Your task to perform on an android device: Add usb-a to the cart on walmart.com, then select checkout. Image 0: 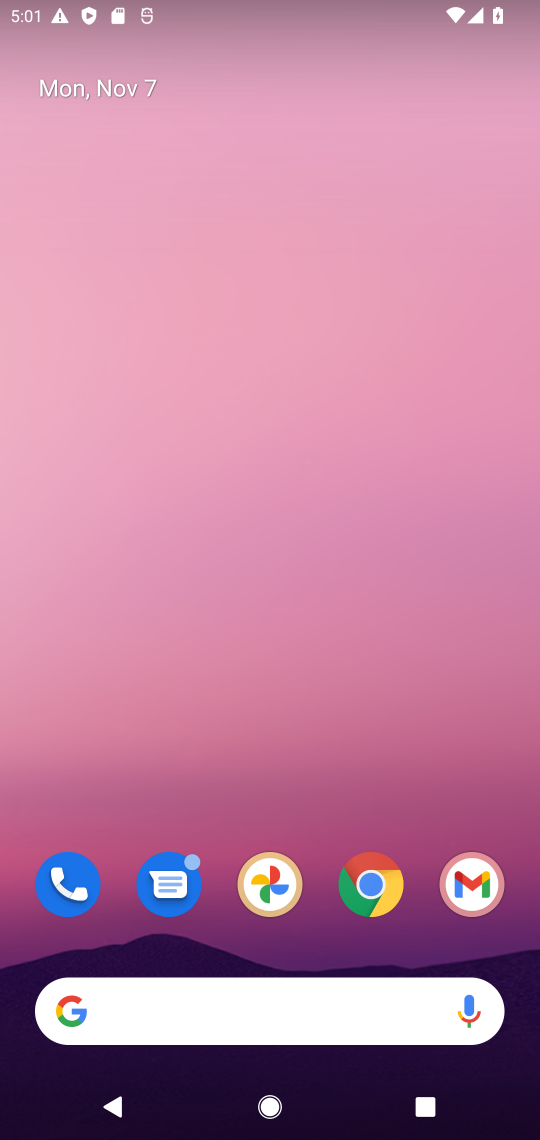
Step 0: drag from (266, 943) to (278, 95)
Your task to perform on an android device: Add usb-a to the cart on walmart.com, then select checkout. Image 1: 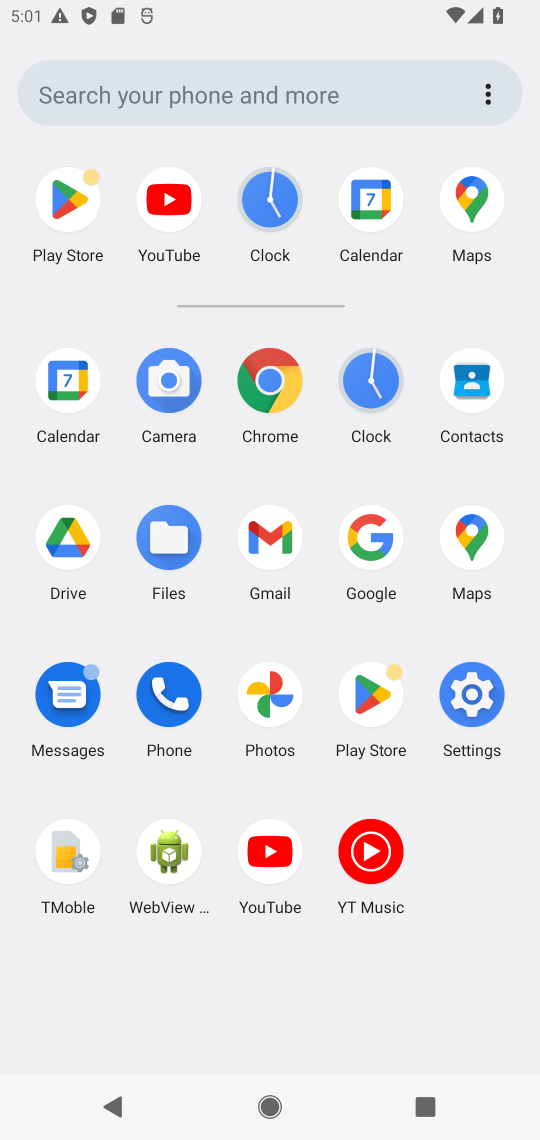
Step 1: click (262, 383)
Your task to perform on an android device: Add usb-a to the cart on walmart.com, then select checkout. Image 2: 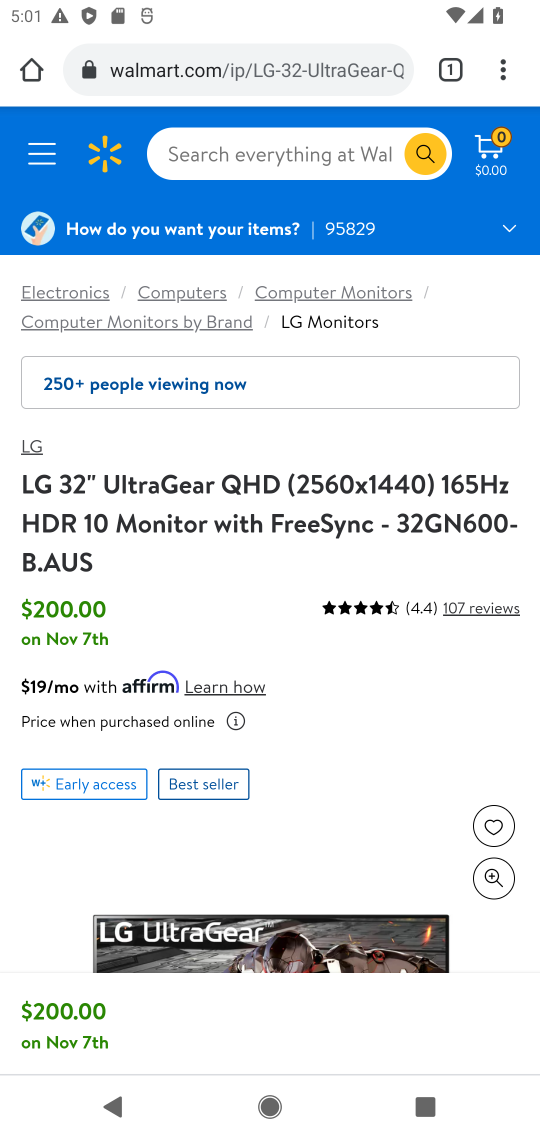
Step 2: click (235, 73)
Your task to perform on an android device: Add usb-a to the cart on walmart.com, then select checkout. Image 3: 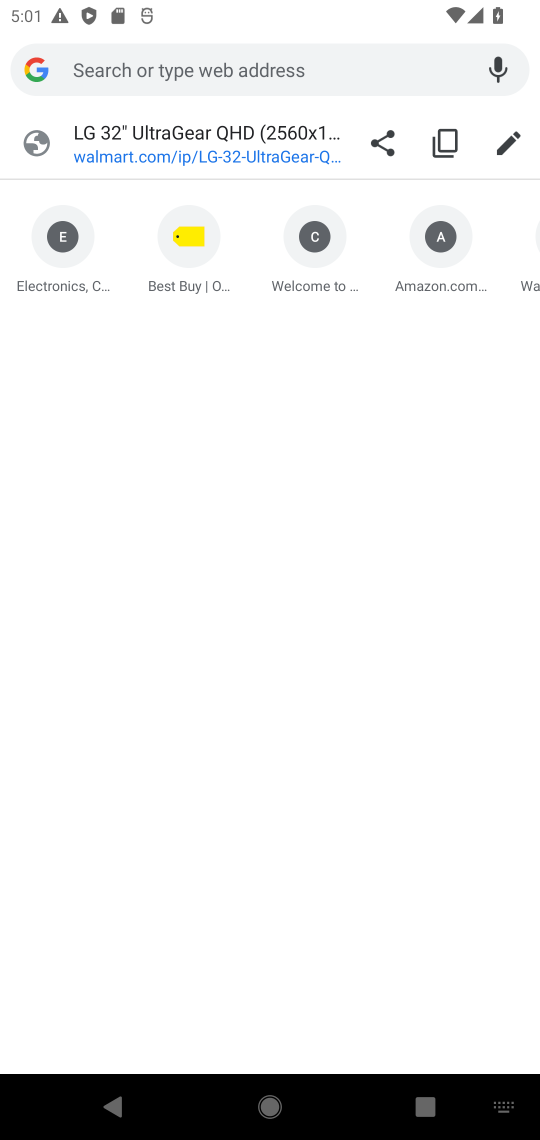
Step 3: type "walmart.com"
Your task to perform on an android device: Add usb-a to the cart on walmart.com, then select checkout. Image 4: 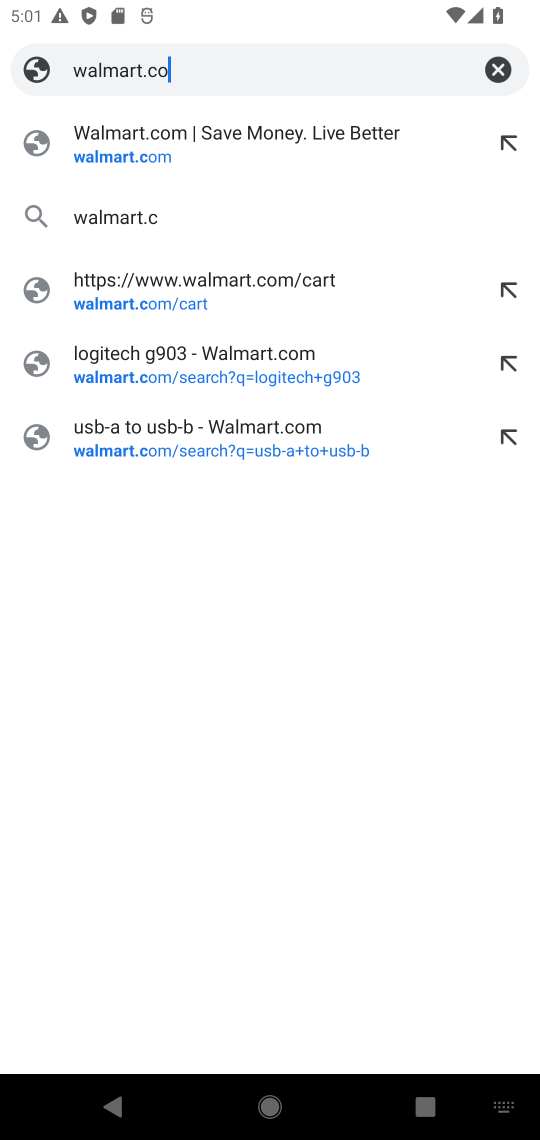
Step 4: press enter
Your task to perform on an android device: Add usb-a to the cart on walmart.com, then select checkout. Image 5: 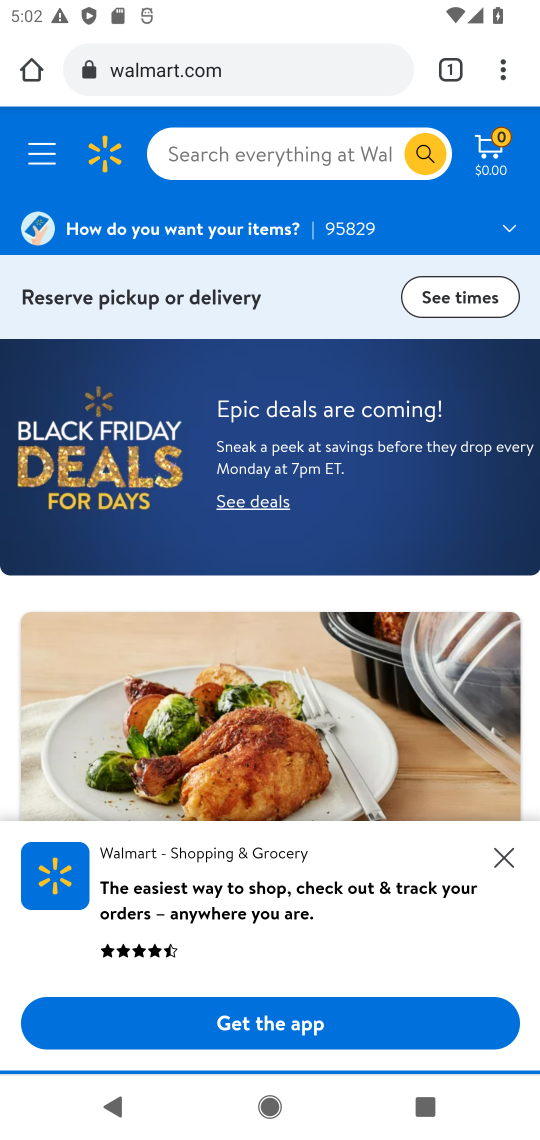
Step 5: click (331, 144)
Your task to perform on an android device: Add usb-a to the cart on walmart.com, then select checkout. Image 6: 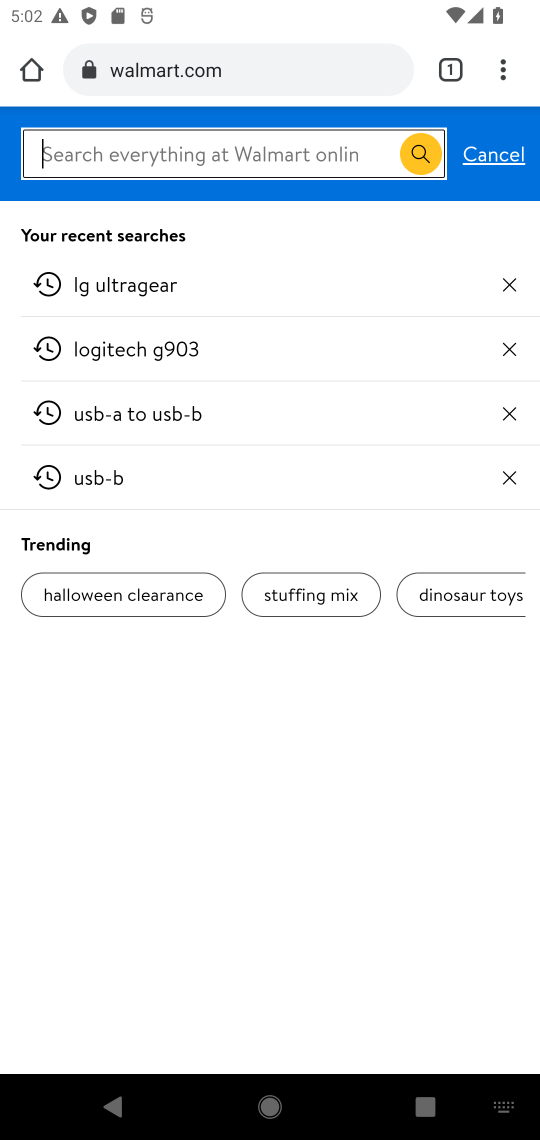
Step 6: type "usb-a"
Your task to perform on an android device: Add usb-a to the cart on walmart.com, then select checkout. Image 7: 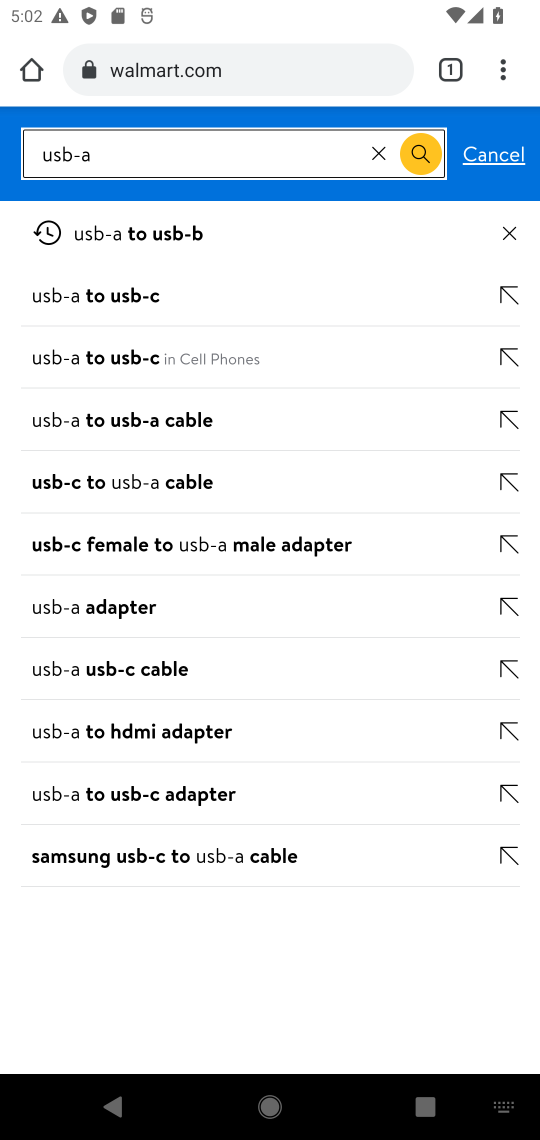
Step 7: press enter
Your task to perform on an android device: Add usb-a to the cart on walmart.com, then select checkout. Image 8: 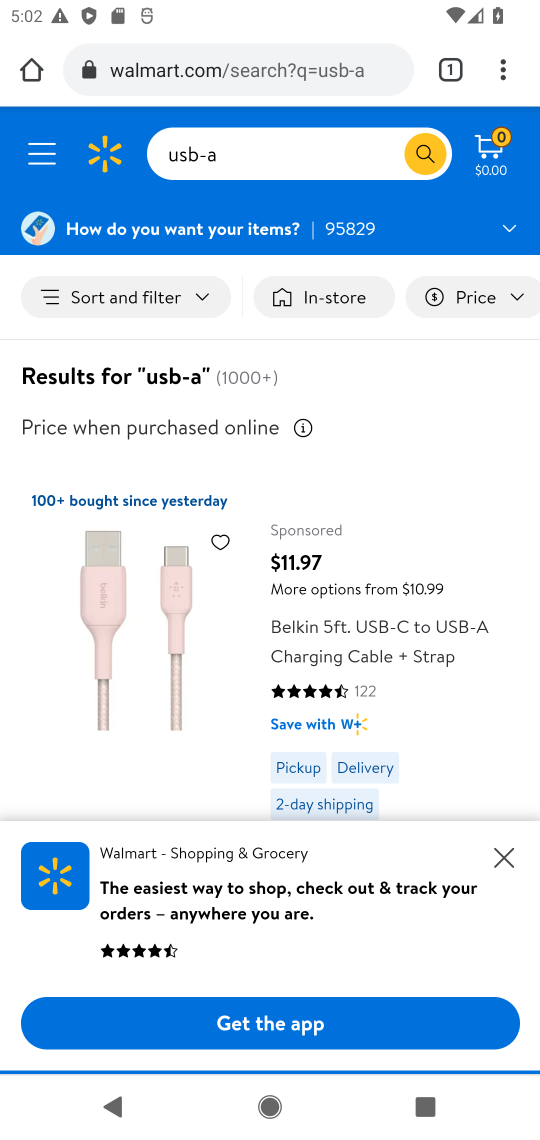
Step 8: drag from (318, 679) to (331, 10)
Your task to perform on an android device: Add usb-a to the cart on walmart.com, then select checkout. Image 9: 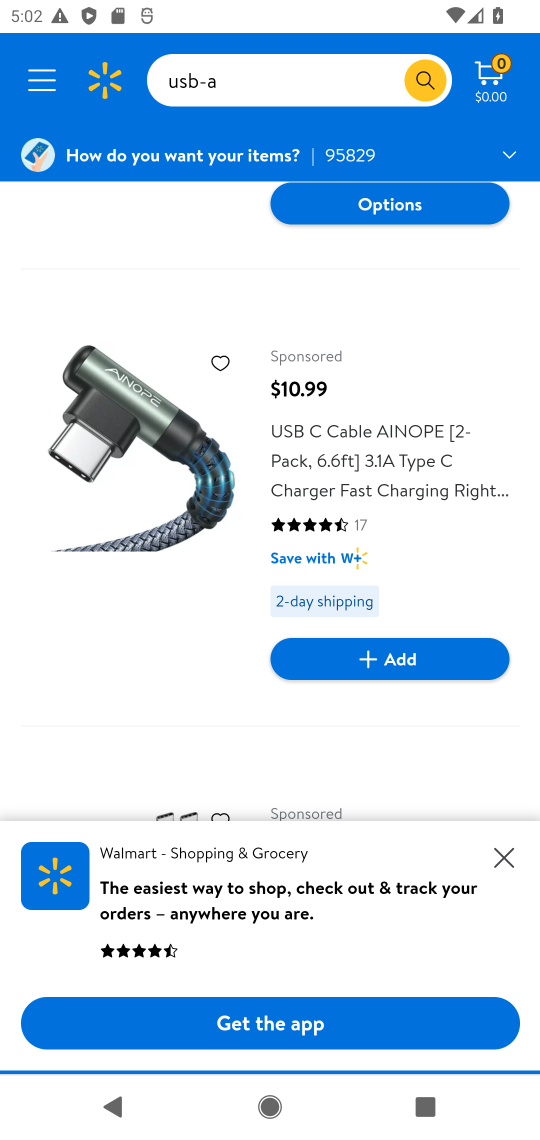
Step 9: drag from (311, 608) to (309, 4)
Your task to perform on an android device: Add usb-a to the cart on walmart.com, then select checkout. Image 10: 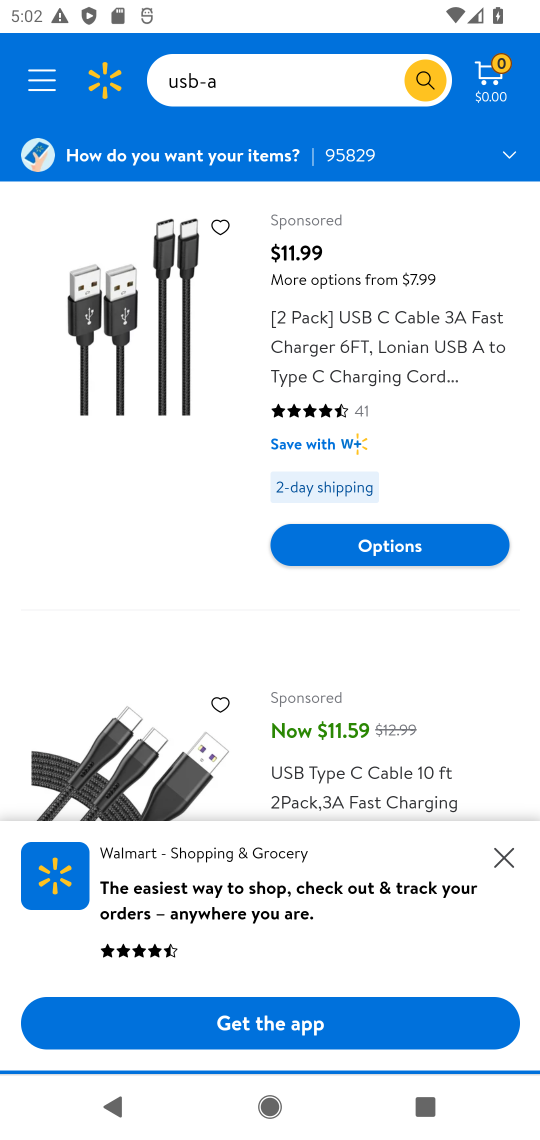
Step 10: drag from (355, 675) to (384, 73)
Your task to perform on an android device: Add usb-a to the cart on walmart.com, then select checkout. Image 11: 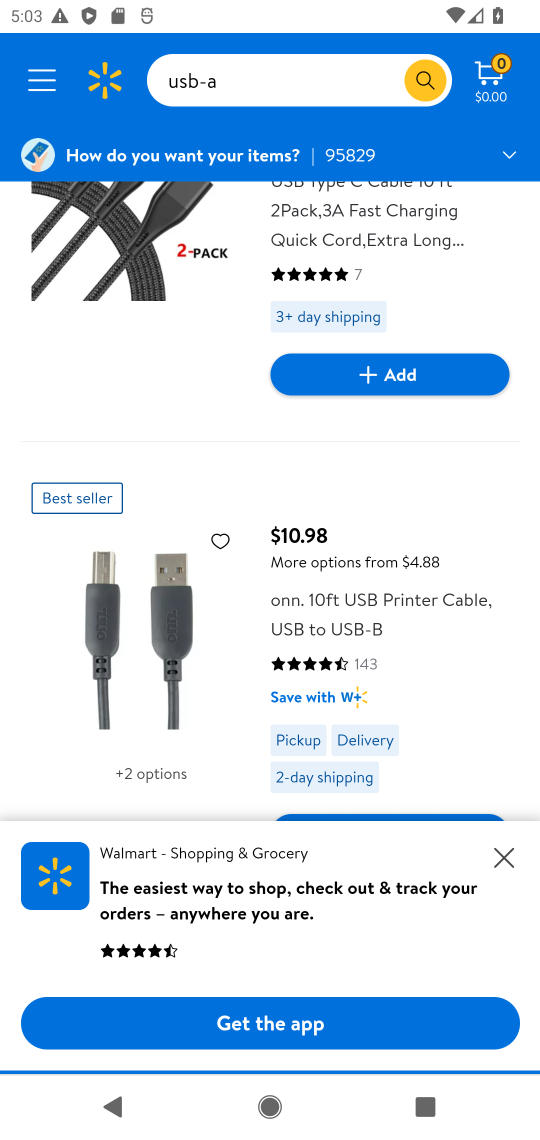
Step 11: drag from (365, 251) to (300, 4)
Your task to perform on an android device: Add usb-a to the cart on walmart.com, then select checkout. Image 12: 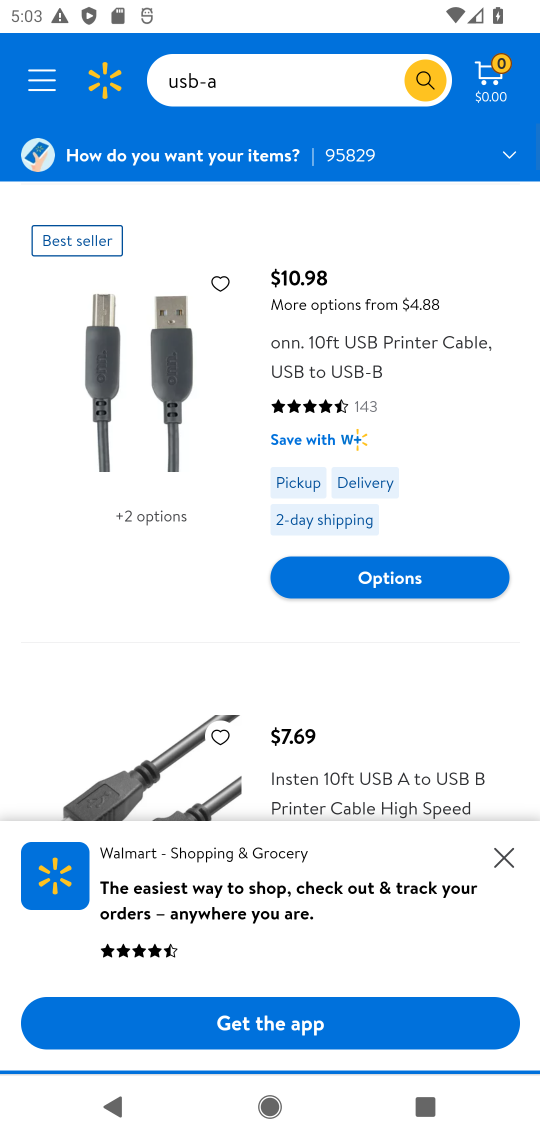
Step 12: drag from (277, 694) to (280, 203)
Your task to perform on an android device: Add usb-a to the cart on walmart.com, then select checkout. Image 13: 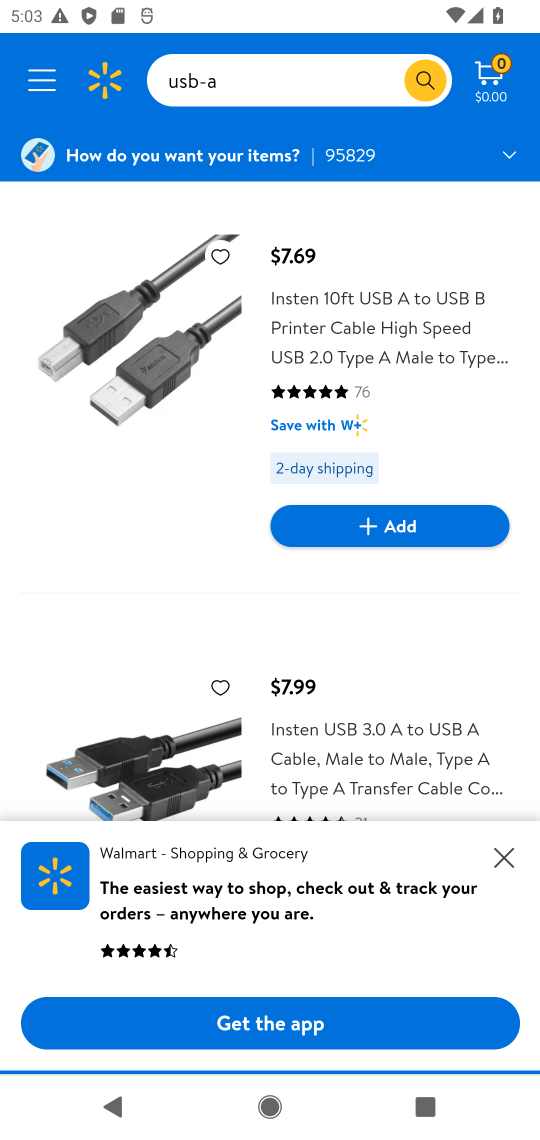
Step 13: click (400, 507)
Your task to perform on an android device: Add usb-a to the cart on walmart.com, then select checkout. Image 14: 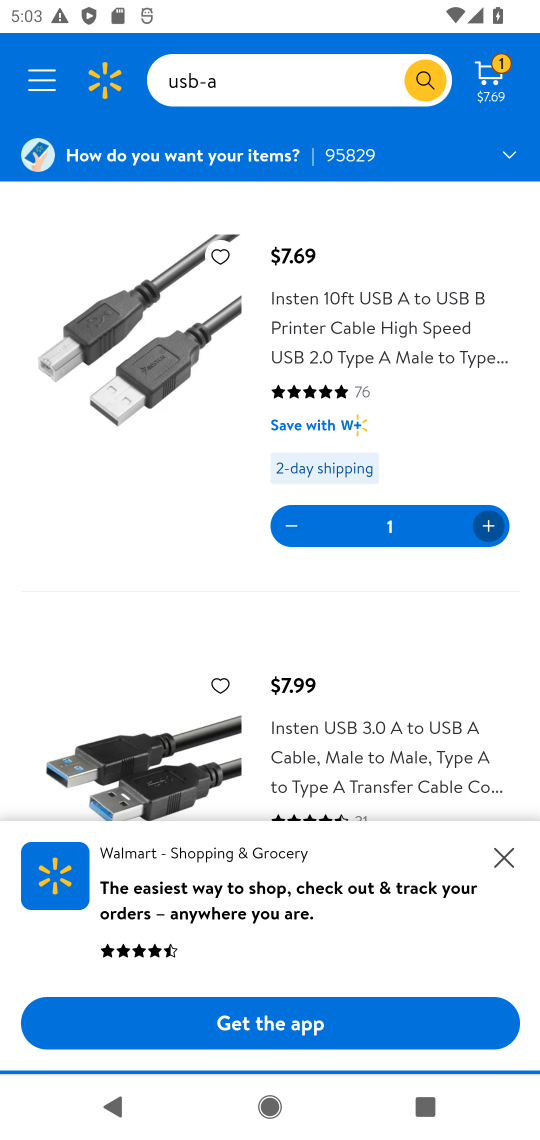
Step 14: click (493, 65)
Your task to perform on an android device: Add usb-a to the cart on walmart.com, then select checkout. Image 15: 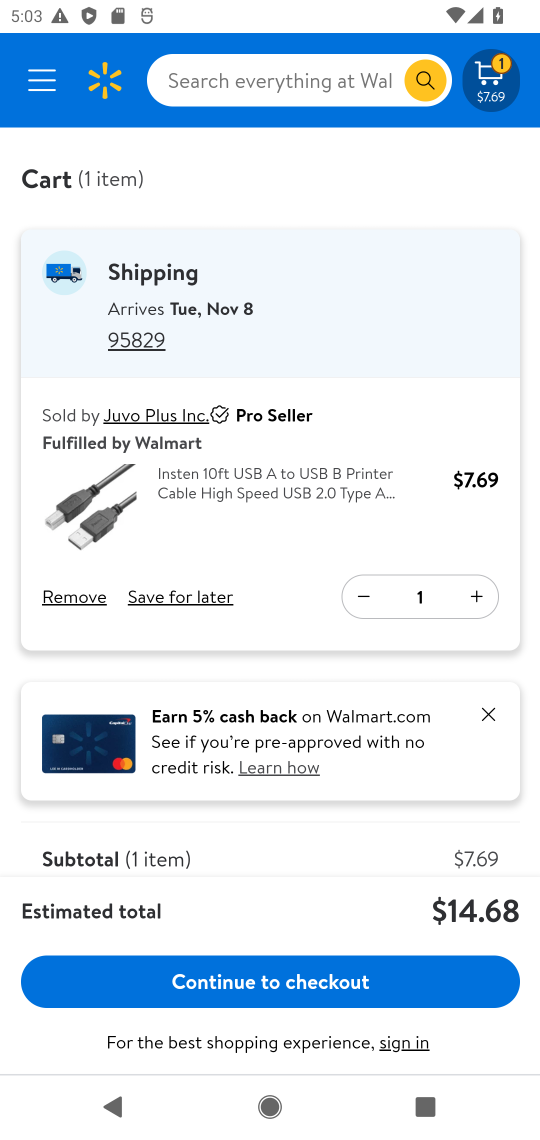
Step 15: click (319, 981)
Your task to perform on an android device: Add usb-a to the cart on walmart.com, then select checkout. Image 16: 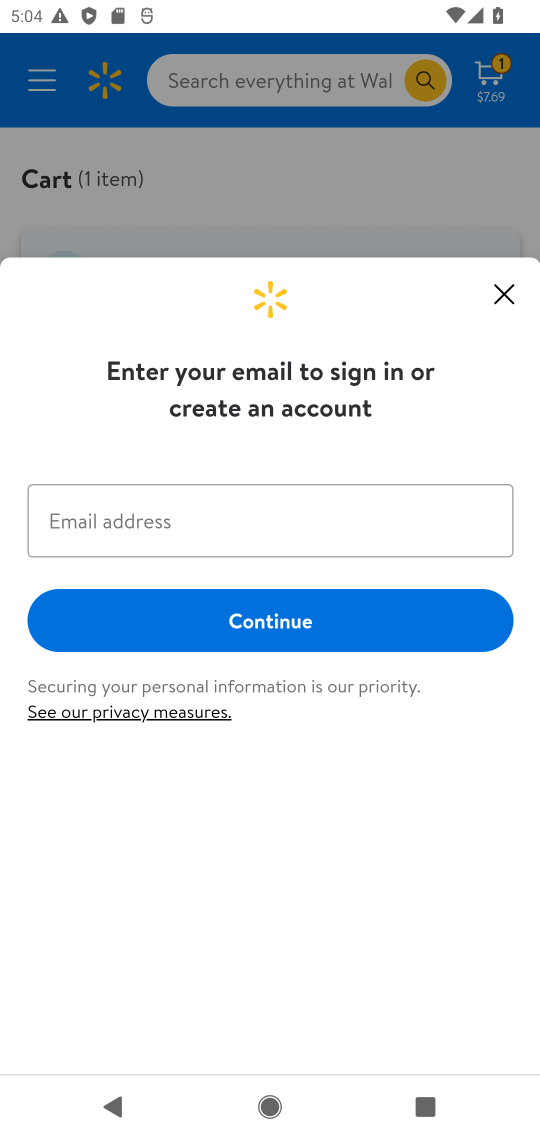
Step 16: task complete